Your task to perform on an android device: Go to CNN.com Image 0: 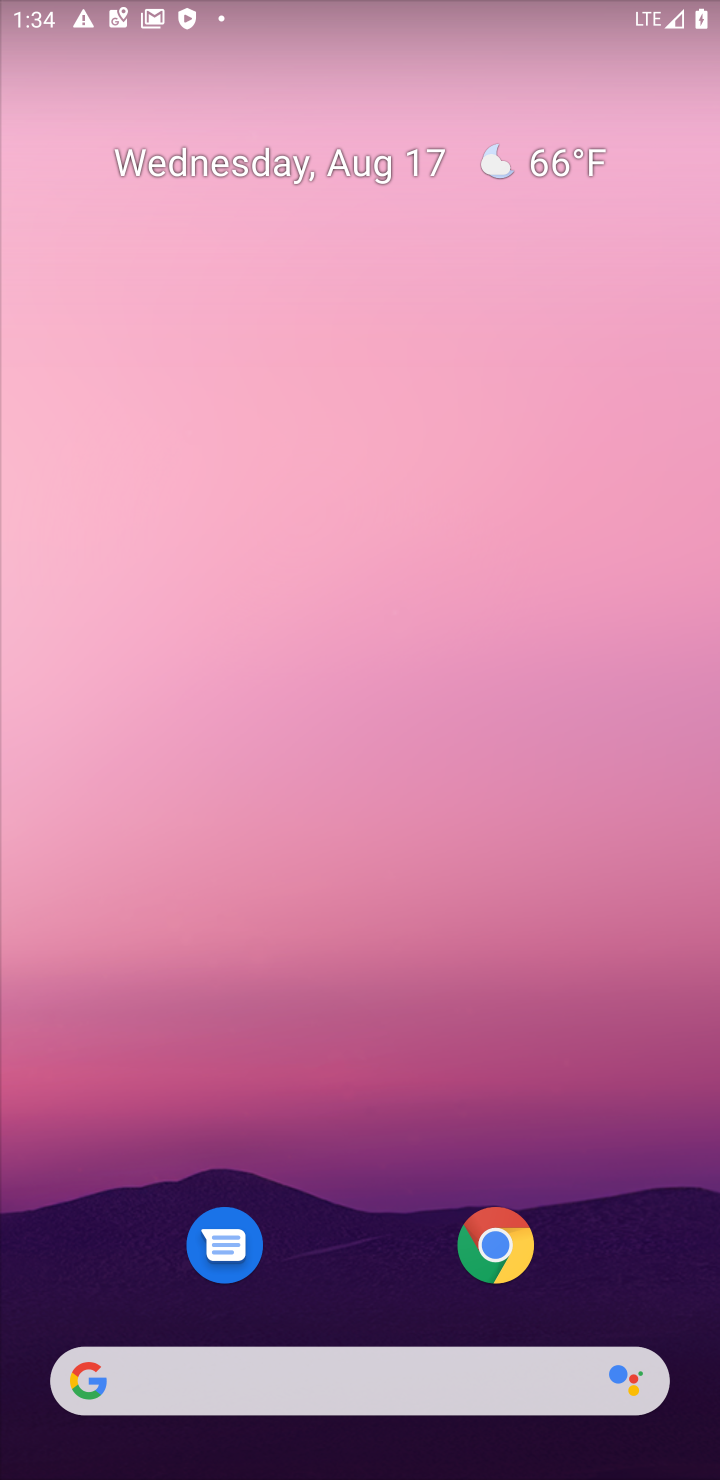
Step 0: click (502, 1257)
Your task to perform on an android device: Go to CNN.com Image 1: 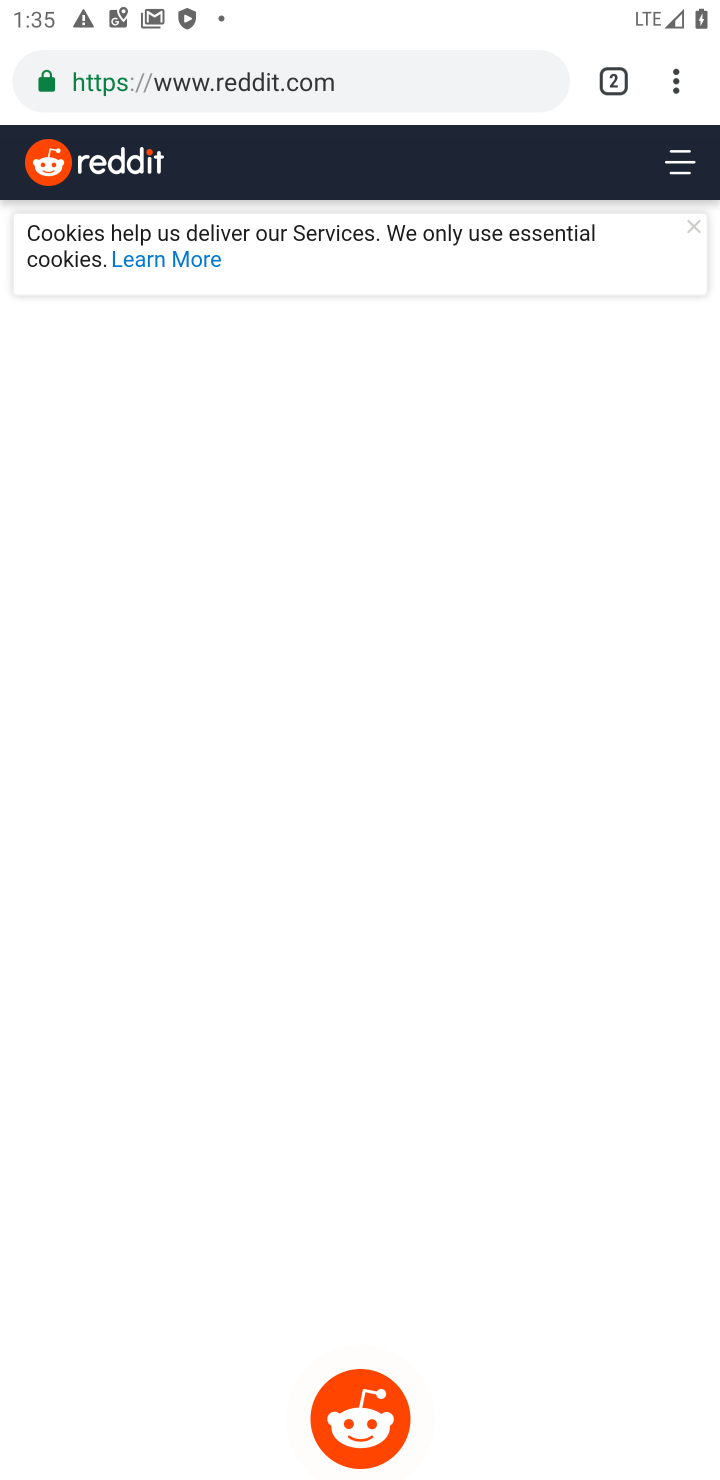
Step 1: click (669, 89)
Your task to perform on an android device: Go to CNN.com Image 2: 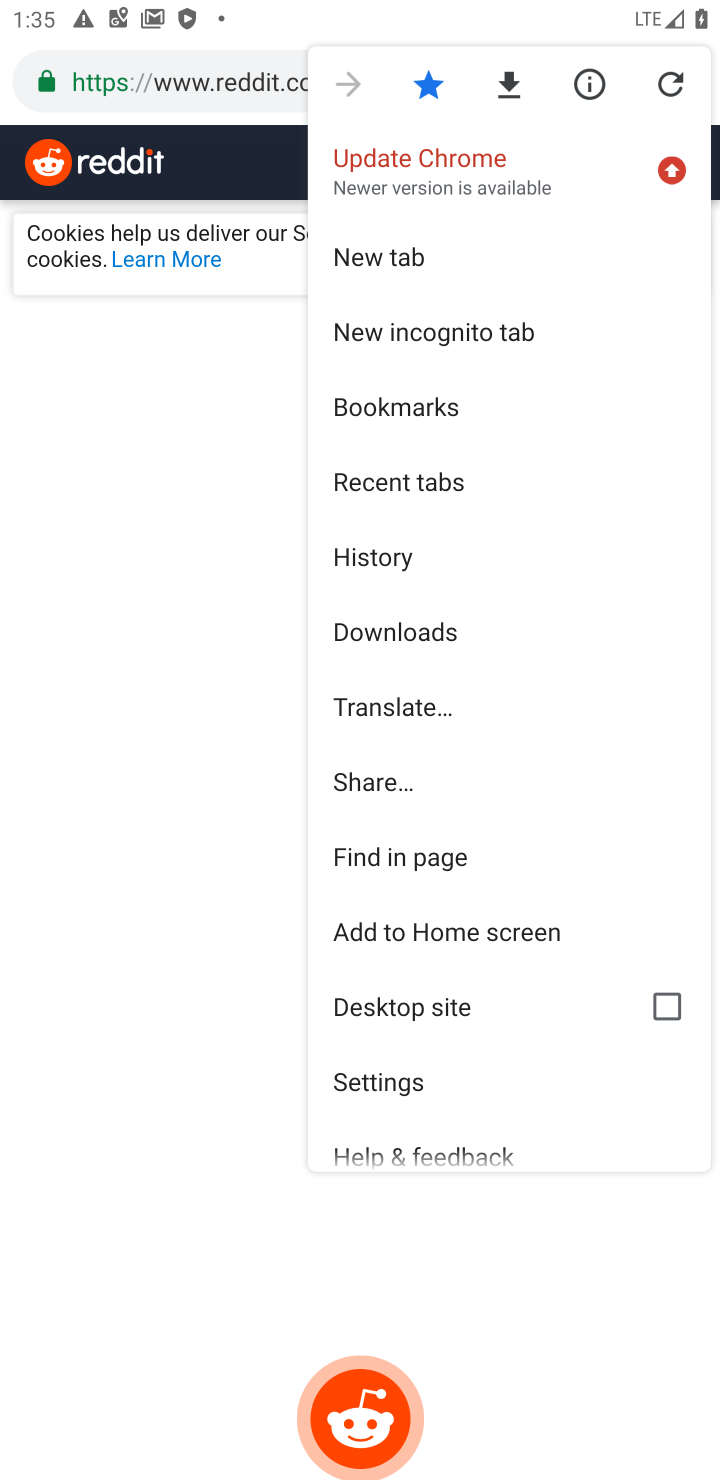
Step 2: click (386, 253)
Your task to perform on an android device: Go to CNN.com Image 3: 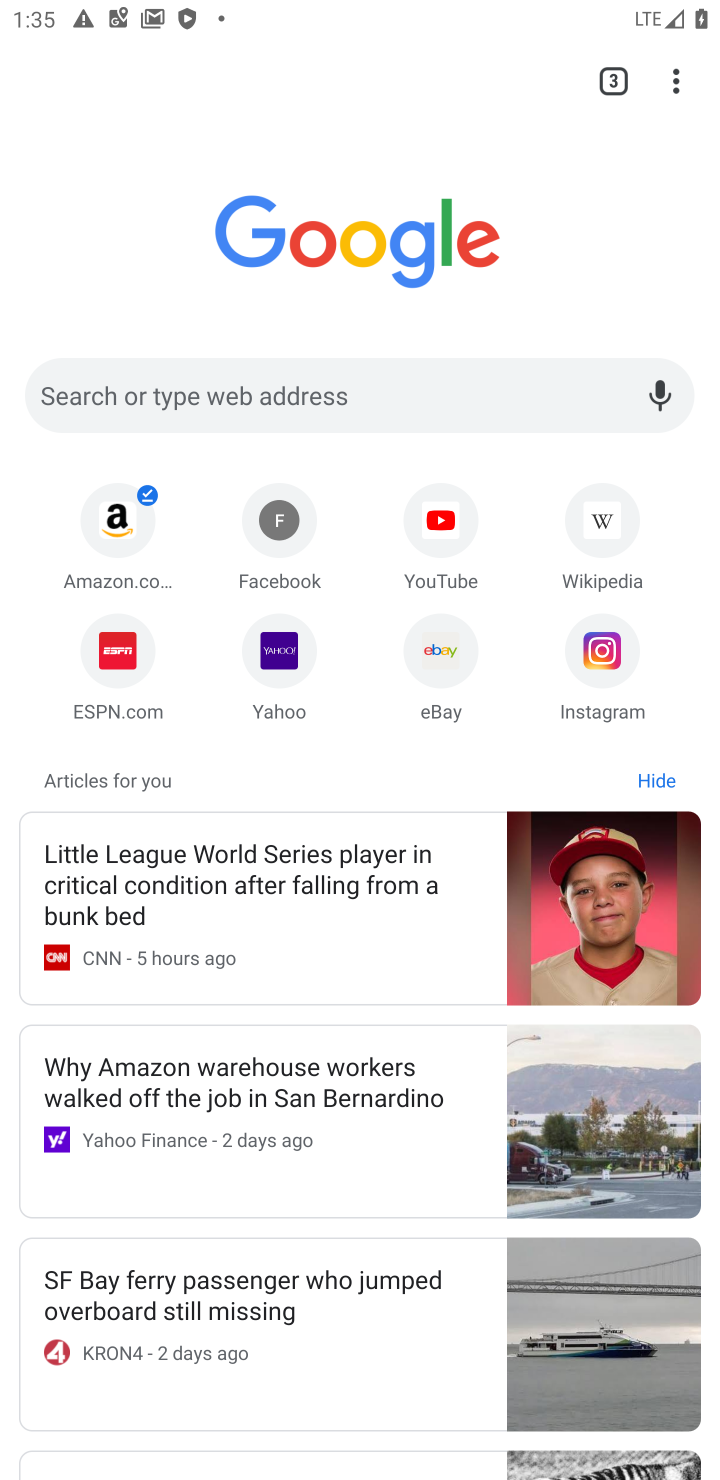
Step 3: click (327, 396)
Your task to perform on an android device: Go to CNN.com Image 4: 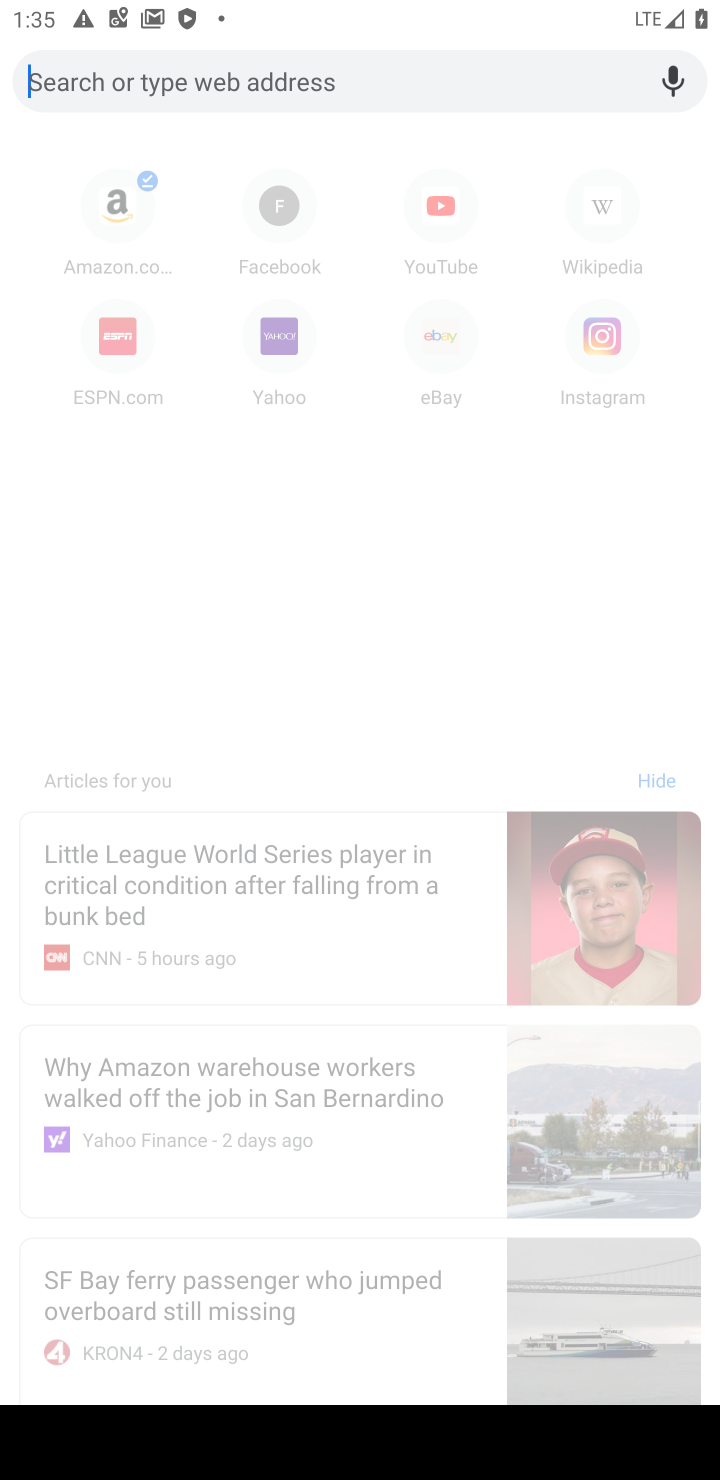
Step 4: type "CNN.com"
Your task to perform on an android device: Go to CNN.com Image 5: 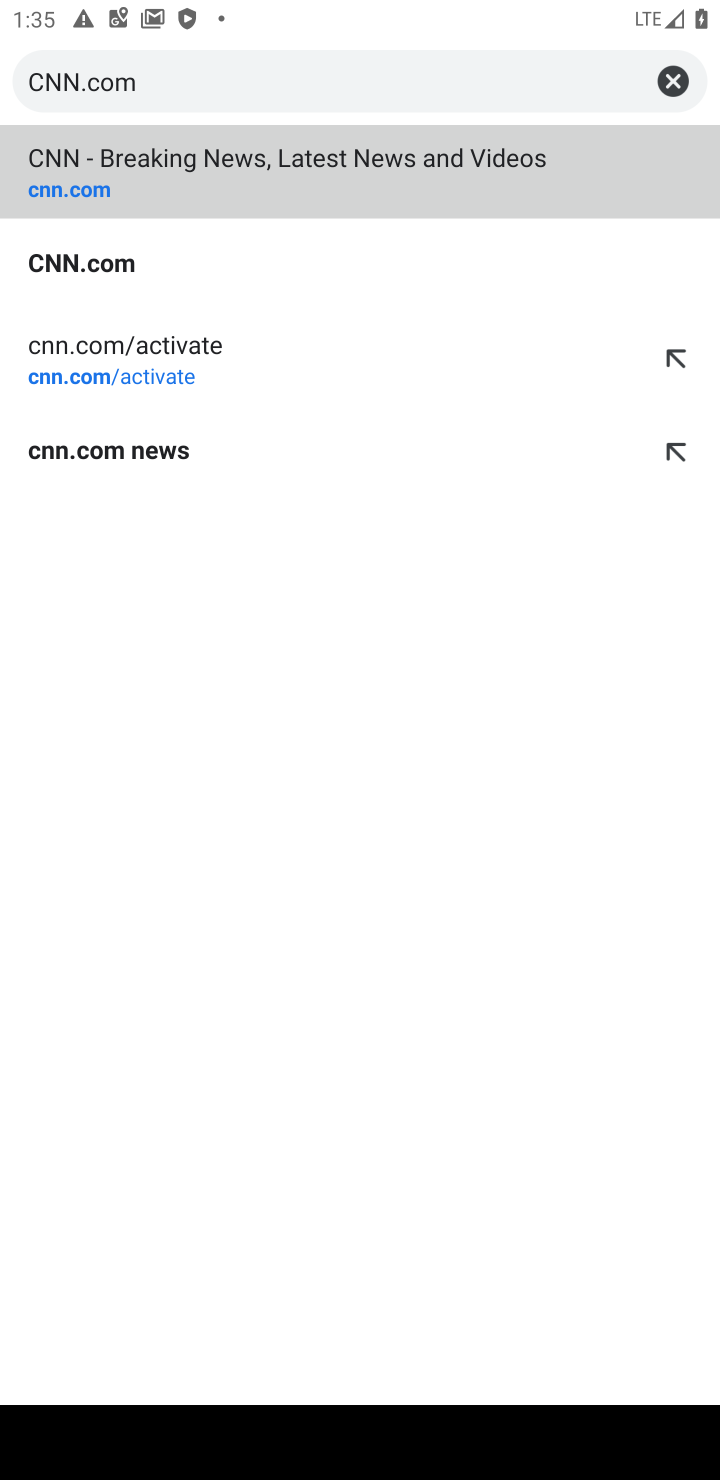
Step 5: click (89, 155)
Your task to perform on an android device: Go to CNN.com Image 6: 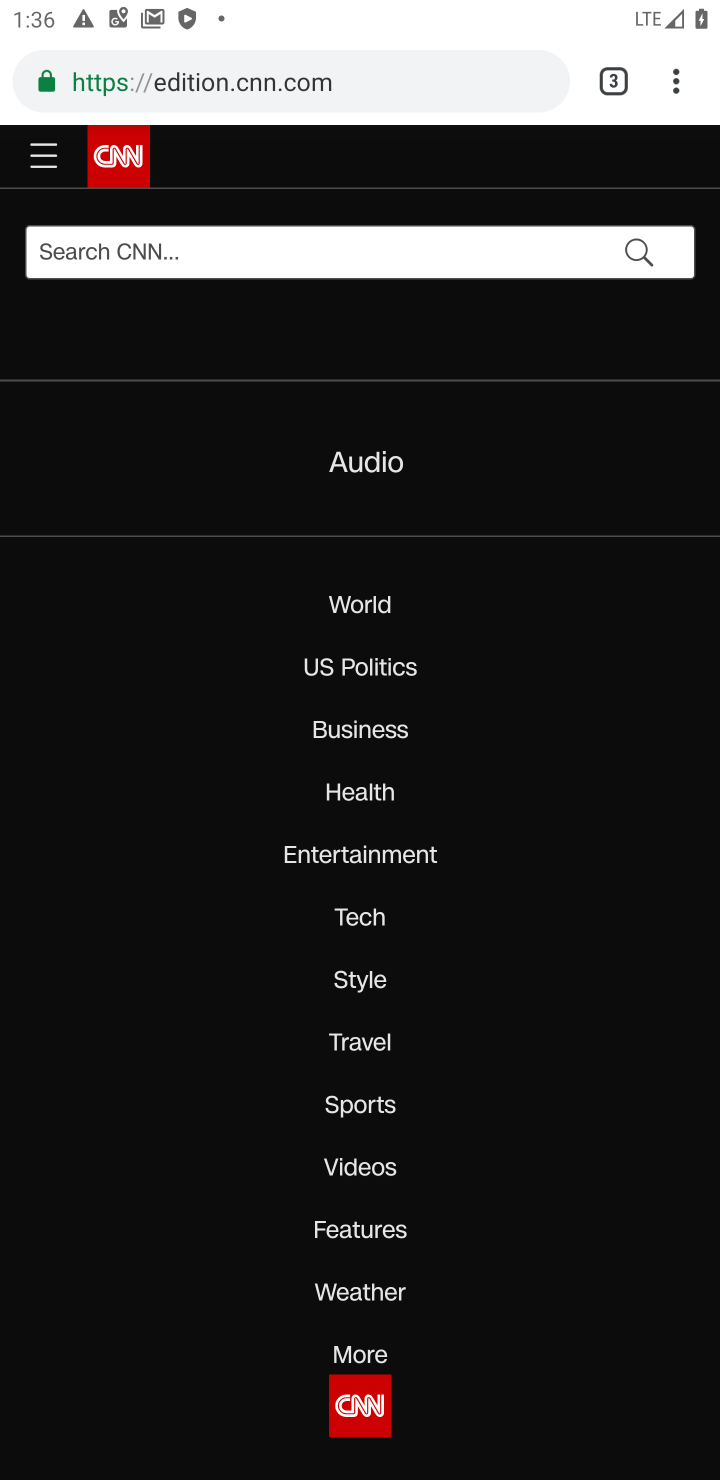
Step 6: task complete